Your task to perform on an android device: Open Chrome and go to the settings page Image 0: 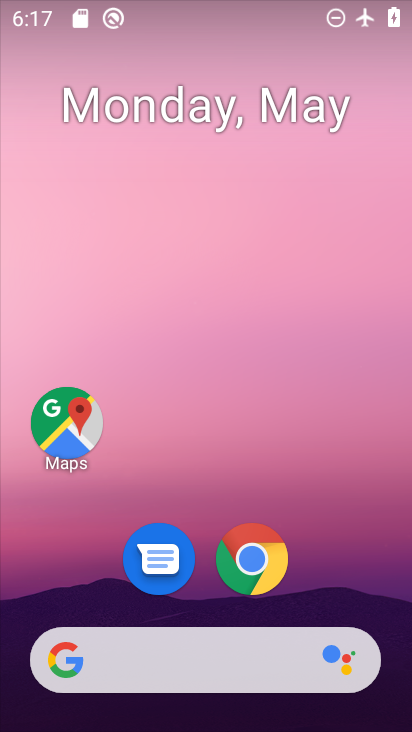
Step 0: click (250, 554)
Your task to perform on an android device: Open Chrome and go to the settings page Image 1: 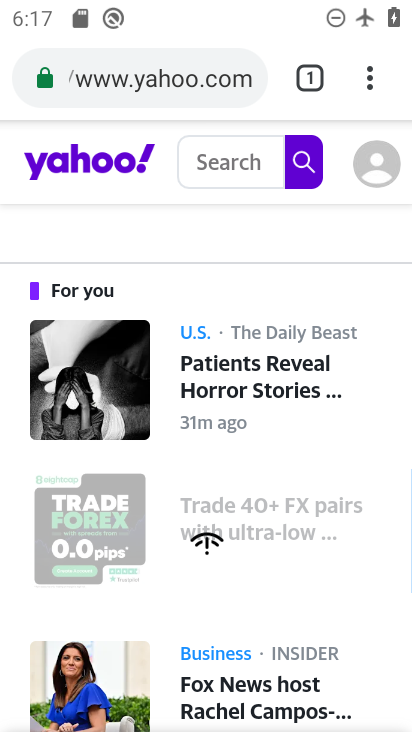
Step 1: click (361, 76)
Your task to perform on an android device: Open Chrome and go to the settings page Image 2: 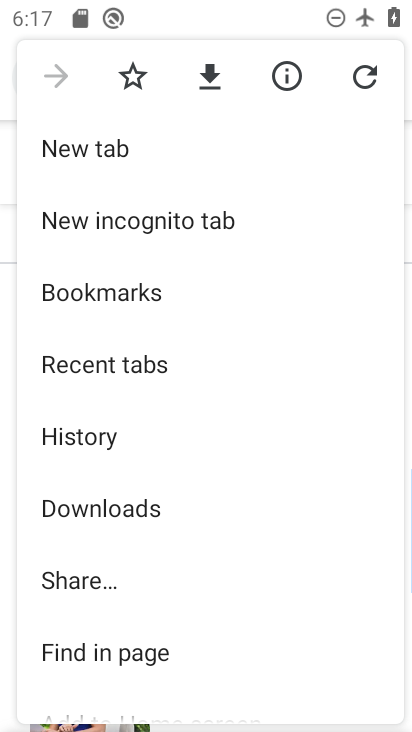
Step 2: drag from (273, 541) to (223, 123)
Your task to perform on an android device: Open Chrome and go to the settings page Image 3: 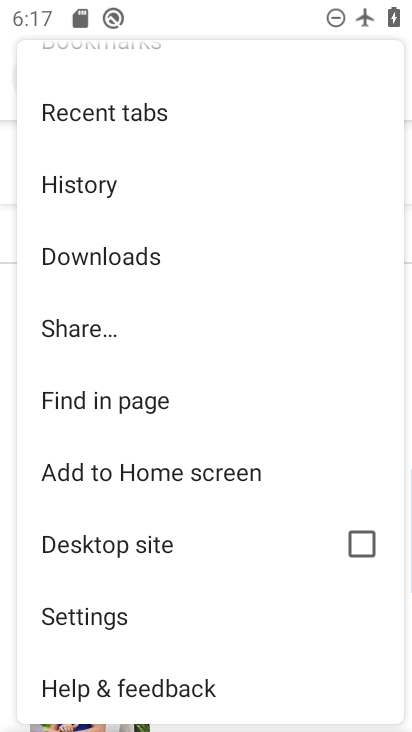
Step 3: click (98, 608)
Your task to perform on an android device: Open Chrome and go to the settings page Image 4: 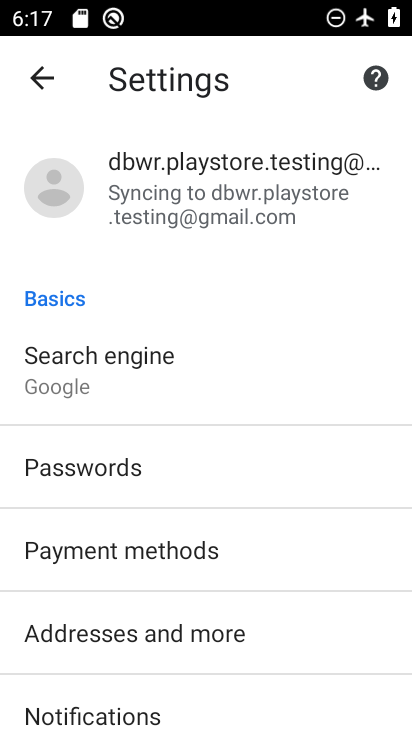
Step 4: task complete